Your task to perform on an android device: Open Android settings Image 0: 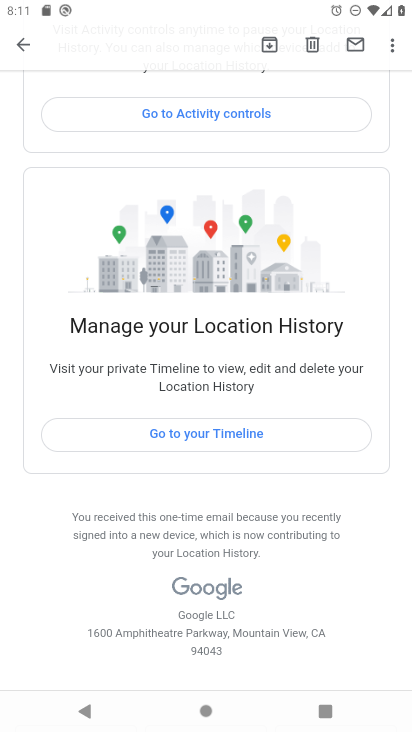
Step 0: press back button
Your task to perform on an android device: Open Android settings Image 1: 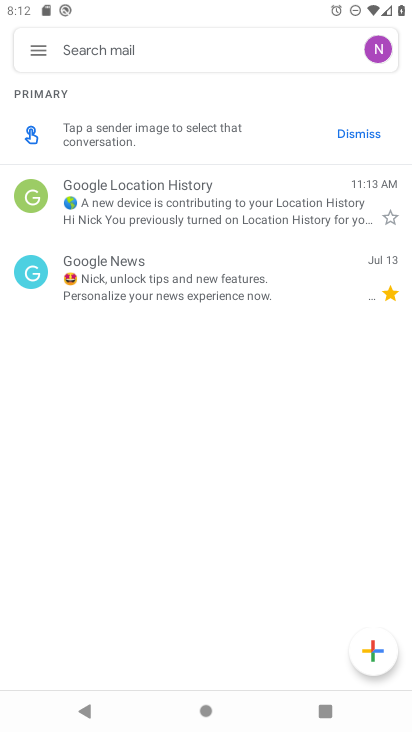
Step 1: press home button
Your task to perform on an android device: Open Android settings Image 2: 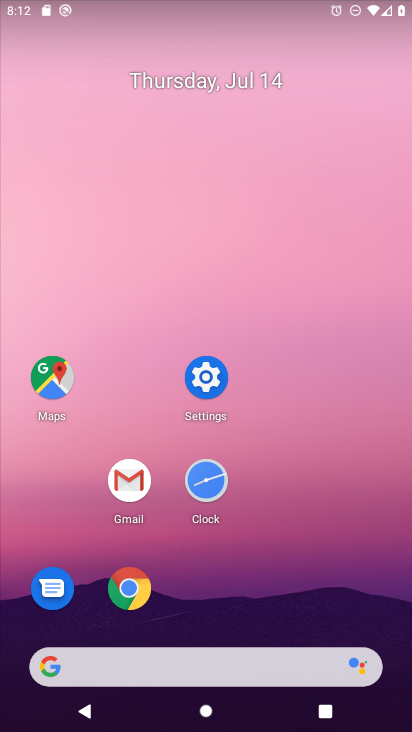
Step 2: click (218, 366)
Your task to perform on an android device: Open Android settings Image 3: 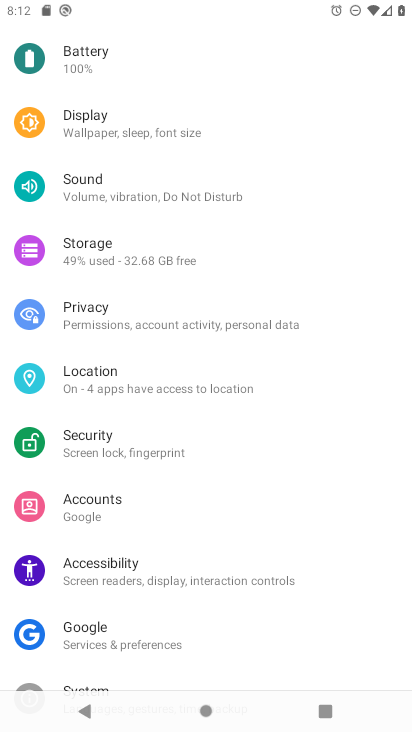
Step 3: task complete